Your task to perform on an android device: Clear the cart on newegg. Image 0: 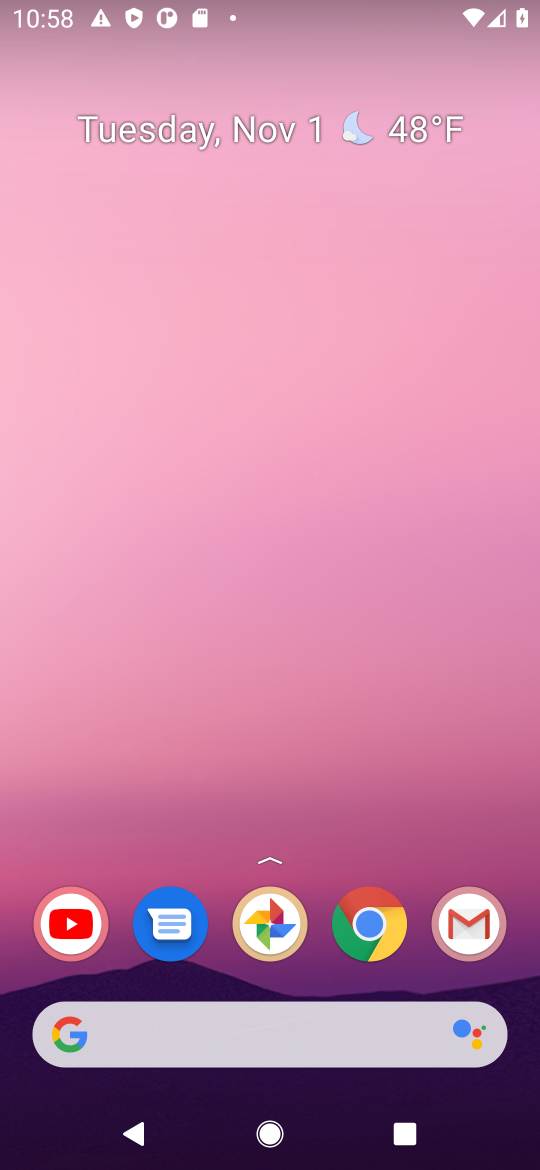
Step 0: click (359, 928)
Your task to perform on an android device: Clear the cart on newegg. Image 1: 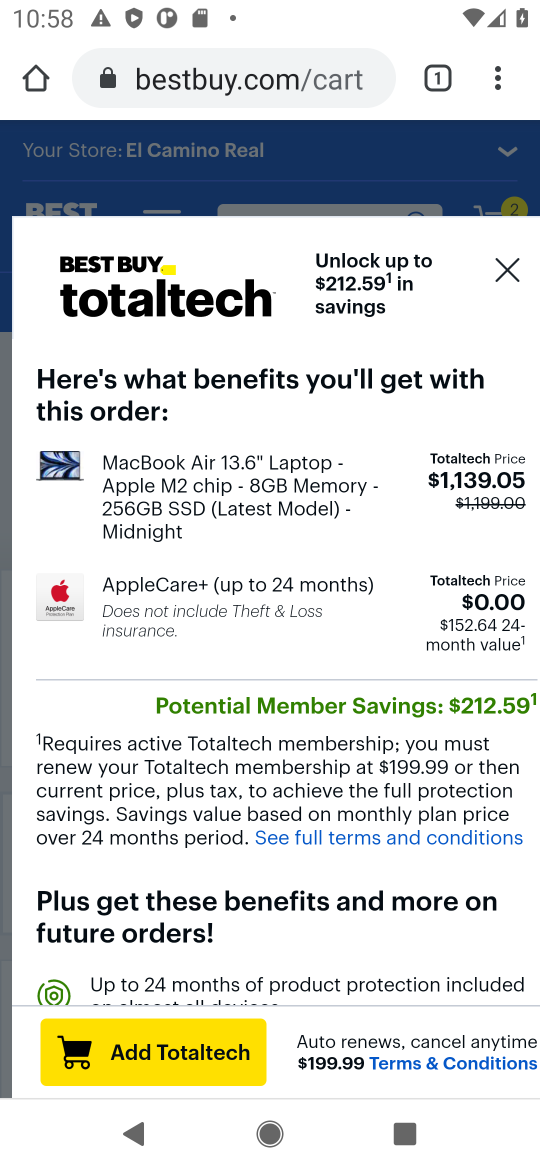
Step 1: click (295, 80)
Your task to perform on an android device: Clear the cart on newegg. Image 2: 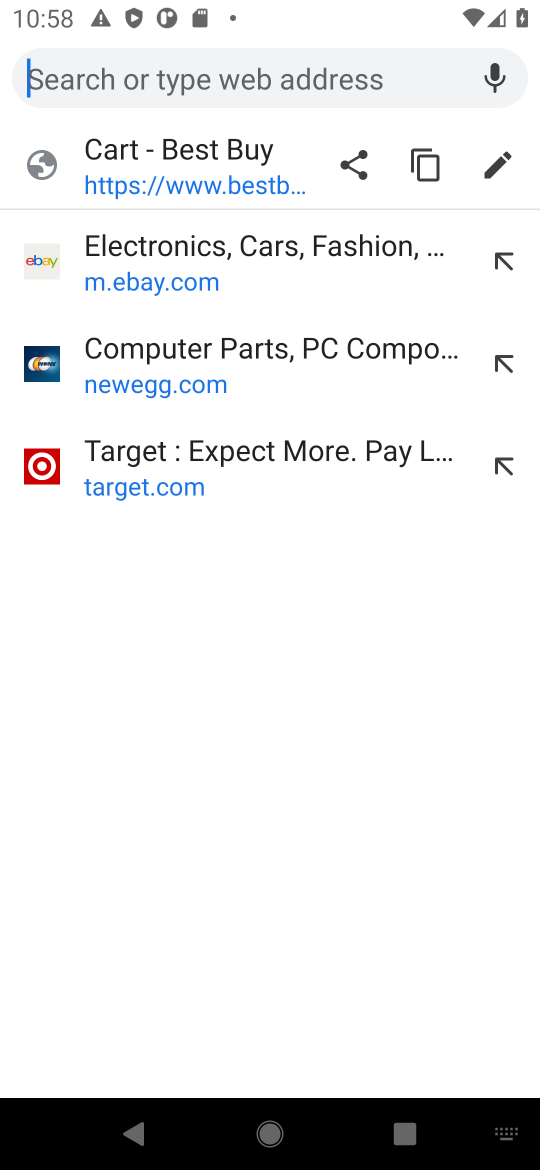
Step 2: type "newegg"
Your task to perform on an android device: Clear the cart on newegg. Image 3: 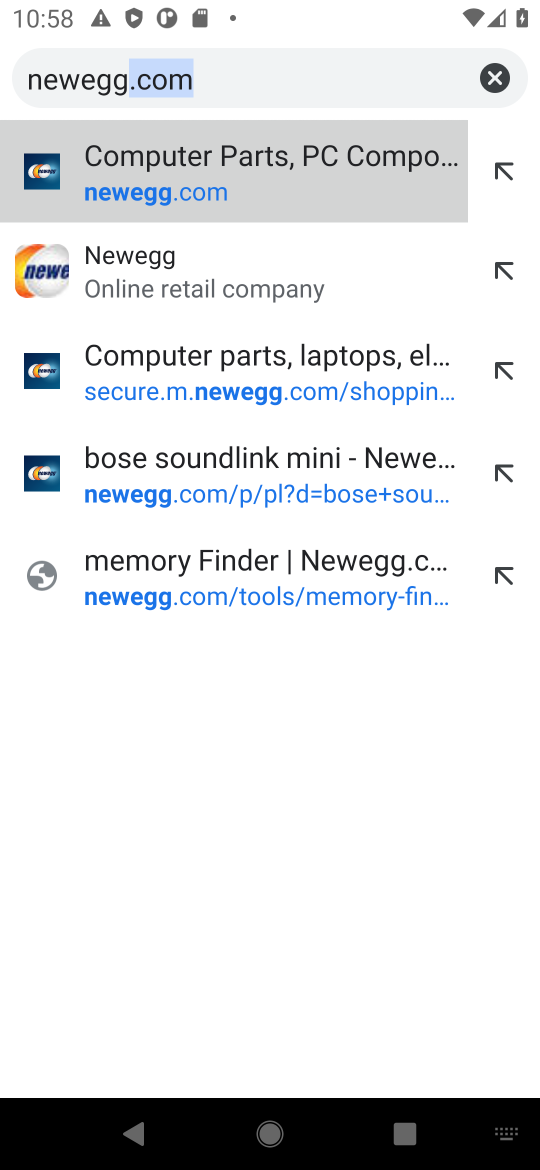
Step 3: press enter
Your task to perform on an android device: Clear the cart on newegg. Image 4: 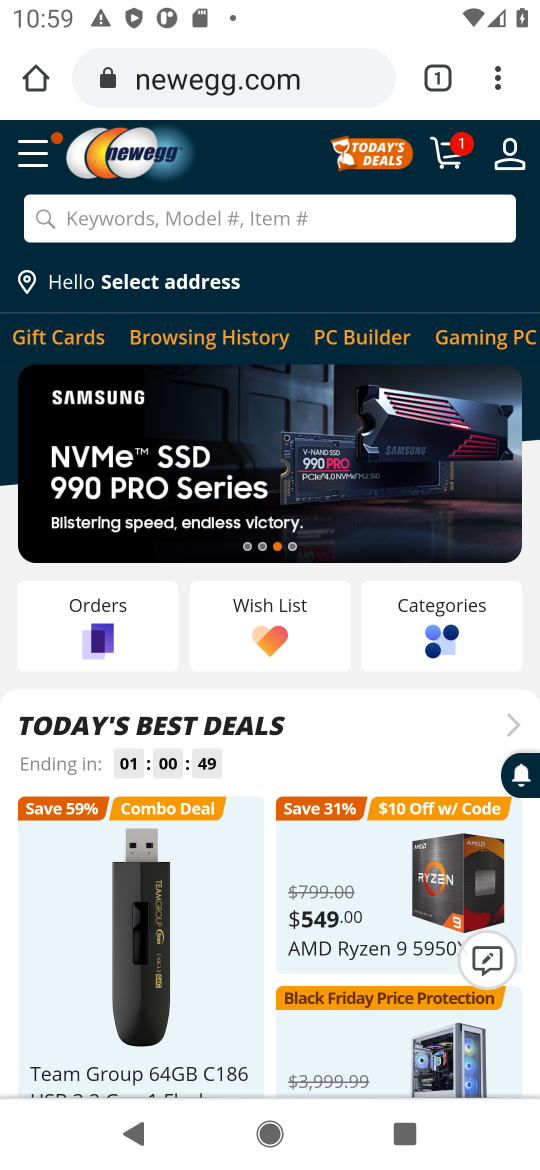
Step 4: click (456, 162)
Your task to perform on an android device: Clear the cart on newegg. Image 5: 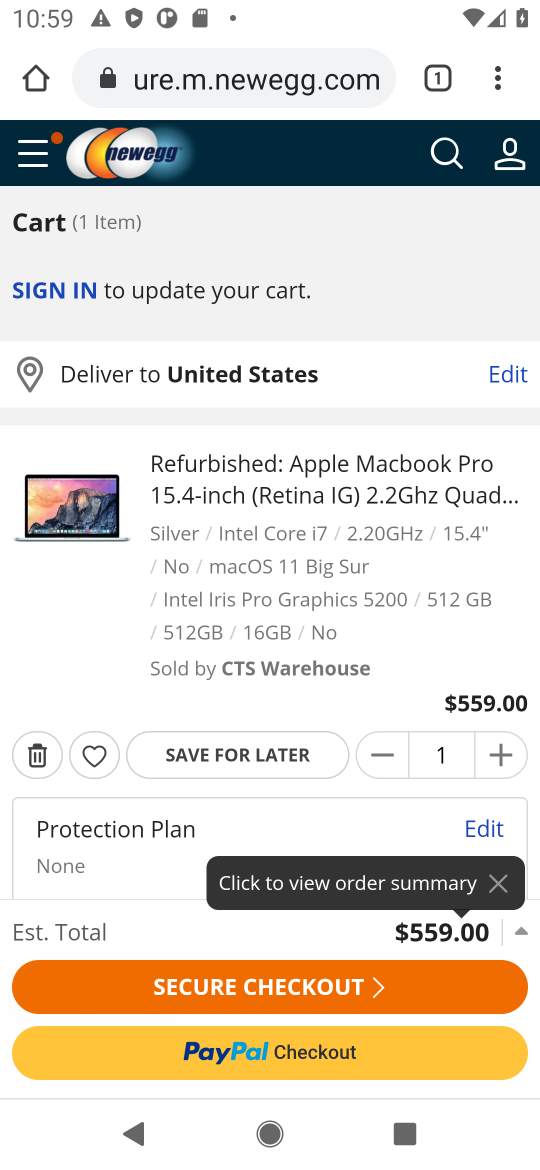
Step 5: click (388, 760)
Your task to perform on an android device: Clear the cart on newegg. Image 6: 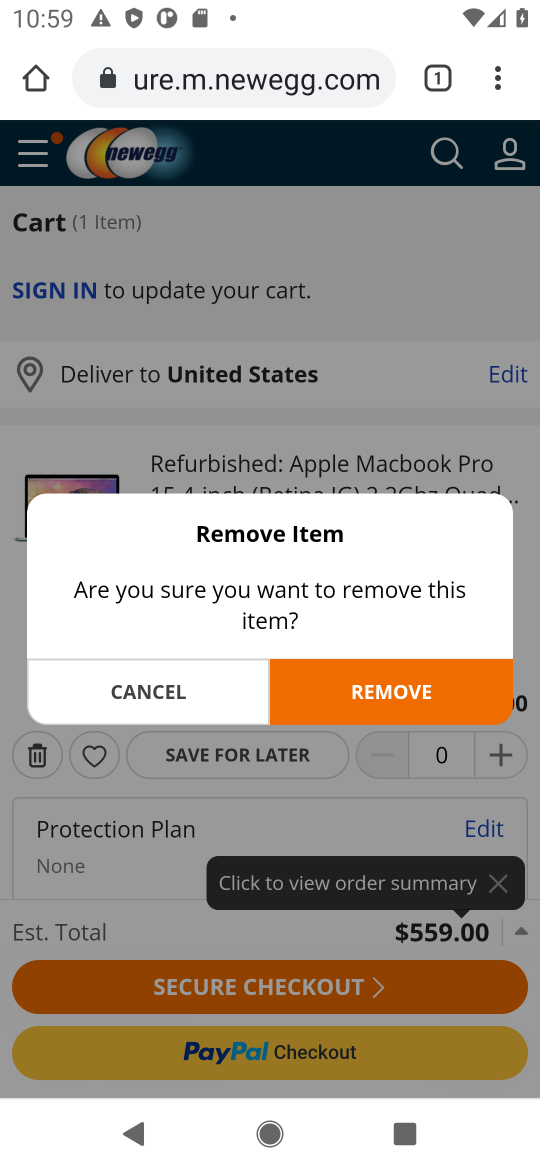
Step 6: click (375, 685)
Your task to perform on an android device: Clear the cart on newegg. Image 7: 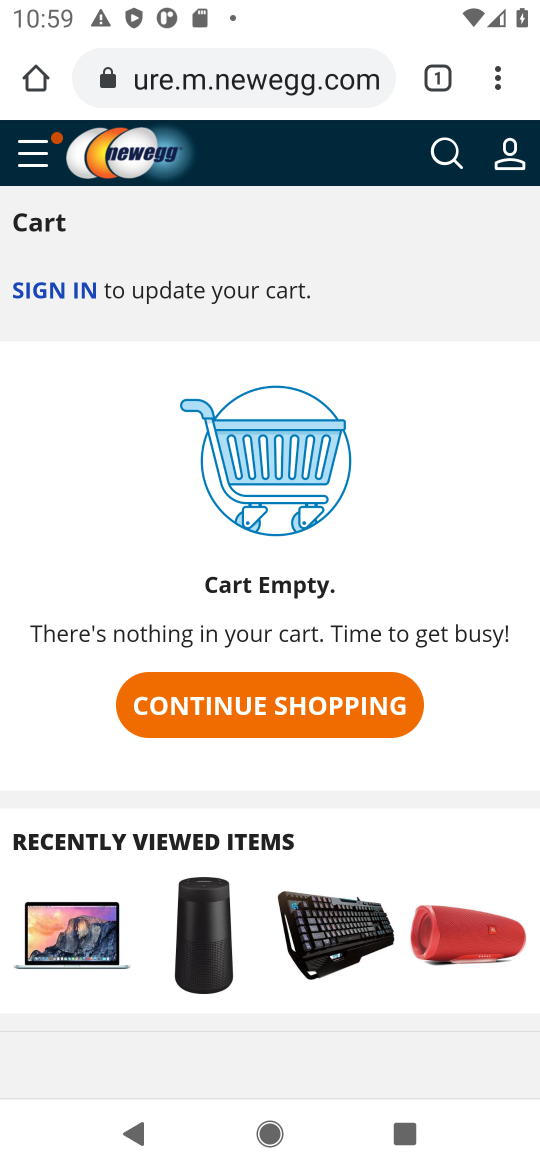
Step 7: task complete